Your task to perform on an android device: install app "Google Home" Image 0: 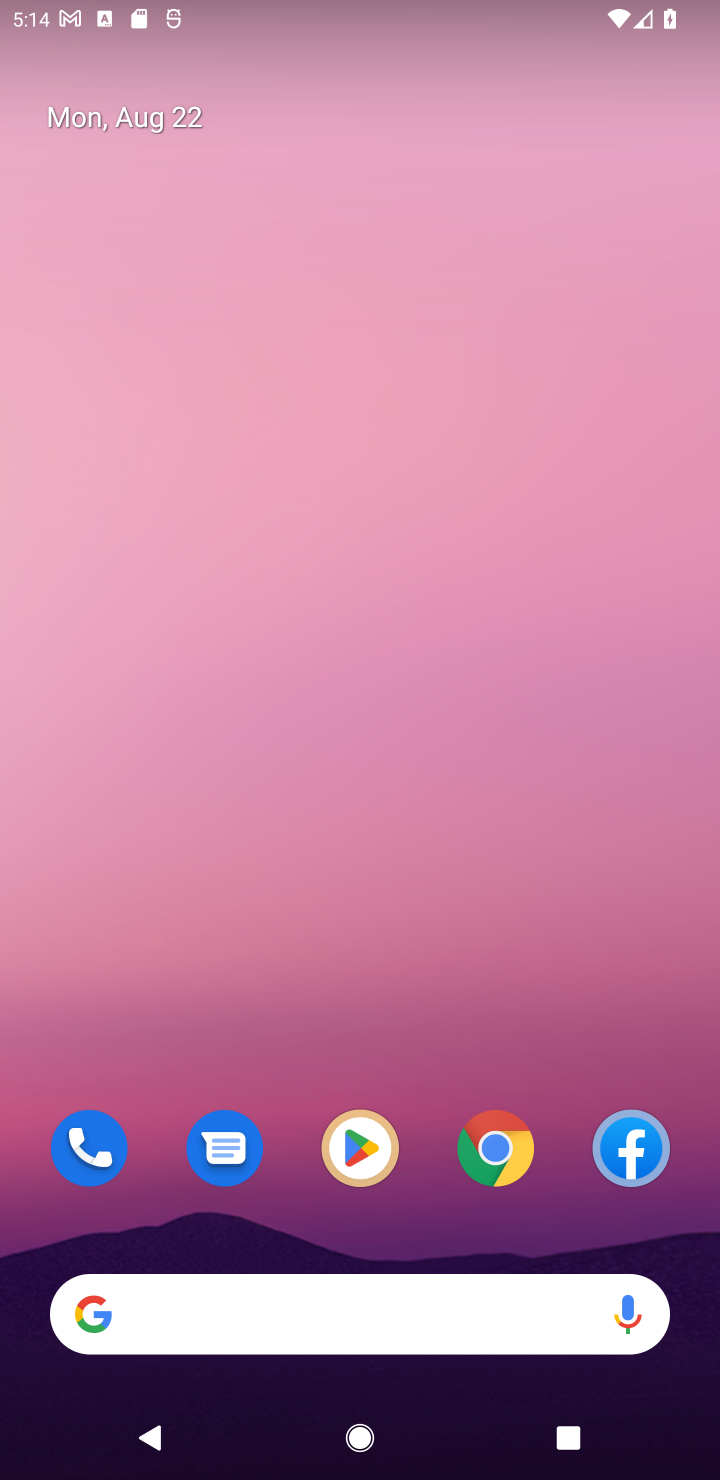
Step 0: click (359, 1149)
Your task to perform on an android device: install app "Google Home" Image 1: 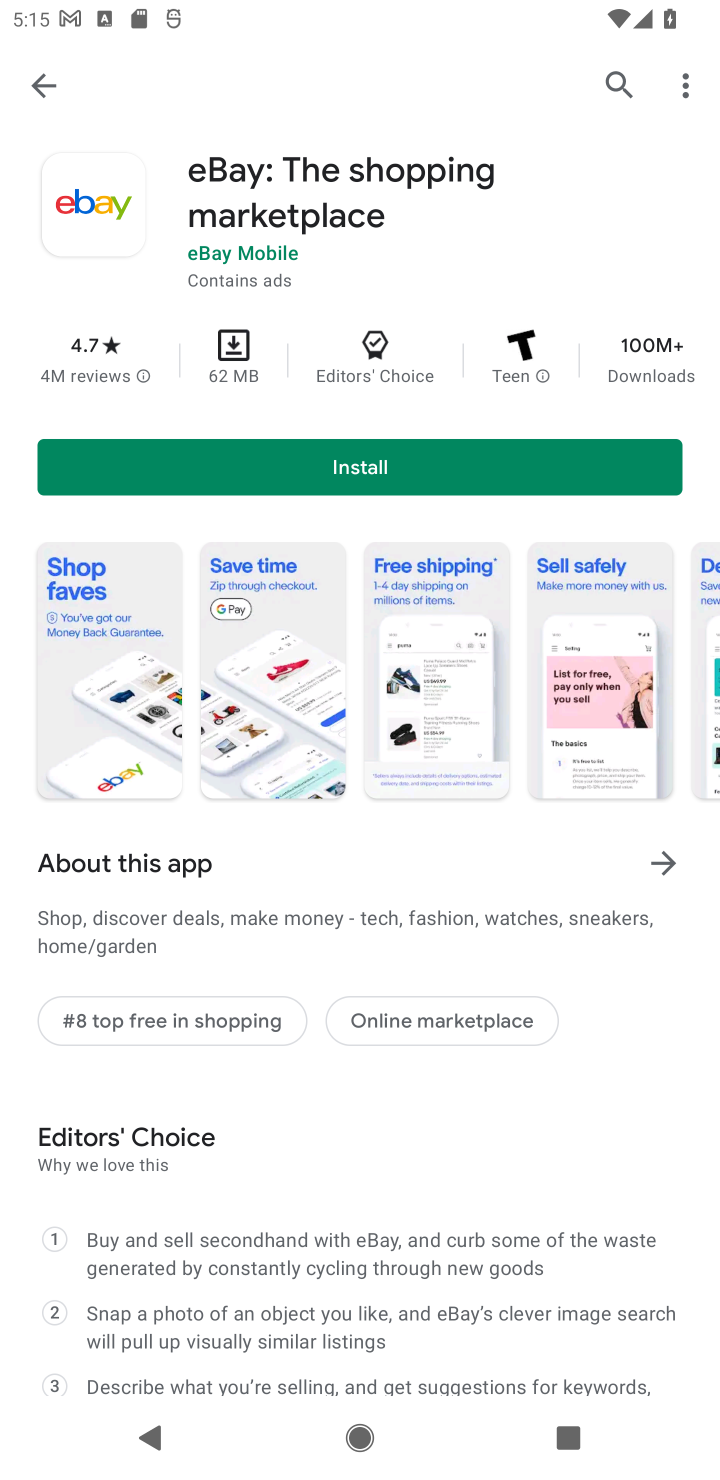
Step 1: click (609, 72)
Your task to perform on an android device: install app "Google Home" Image 2: 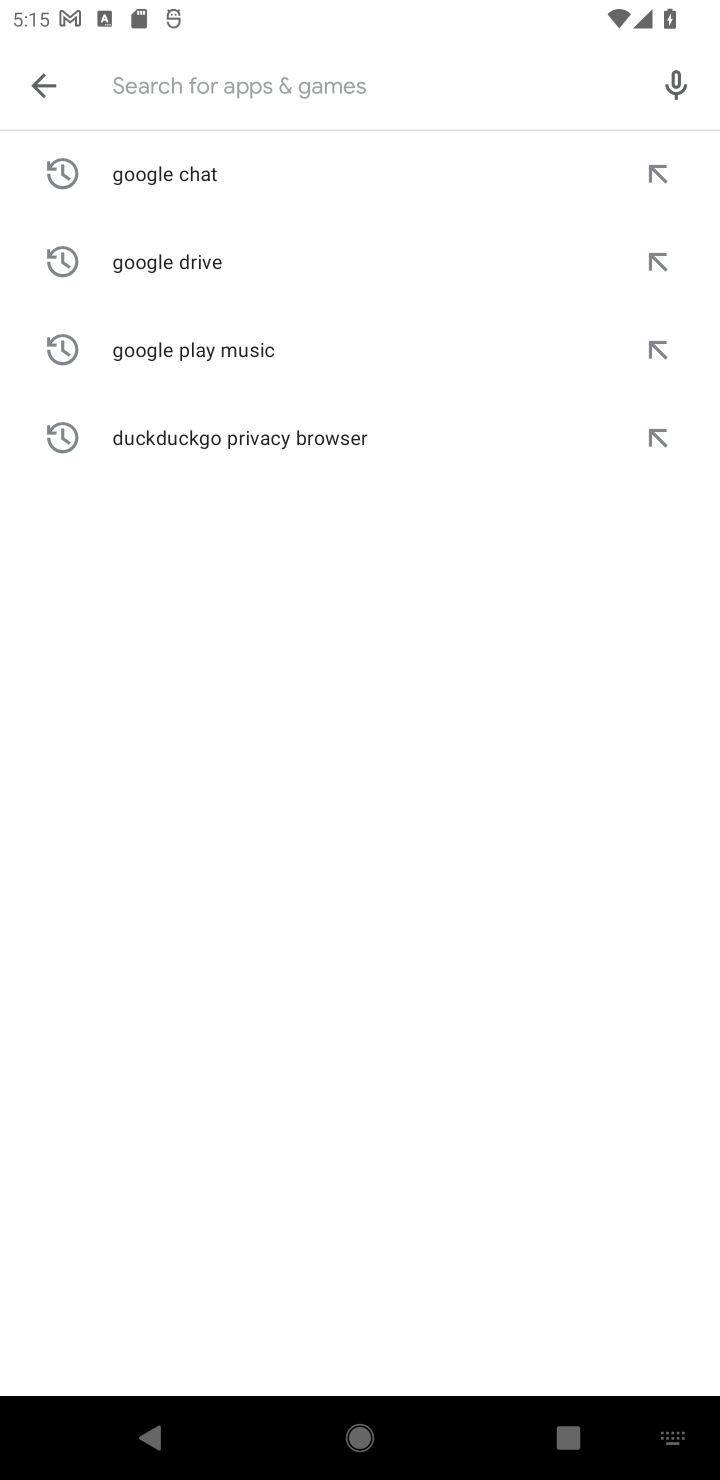
Step 2: type "Google Home"
Your task to perform on an android device: install app "Google Home" Image 3: 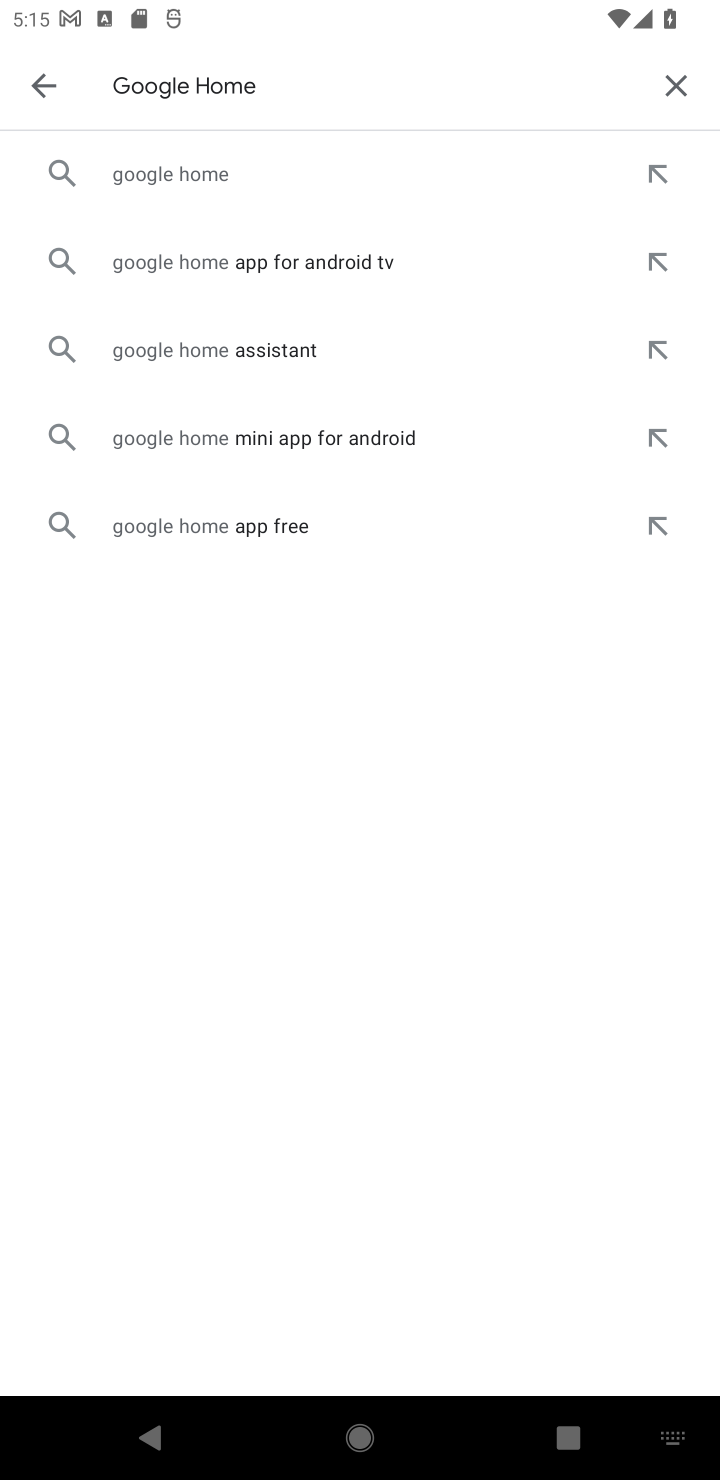
Step 3: click (186, 174)
Your task to perform on an android device: install app "Google Home" Image 4: 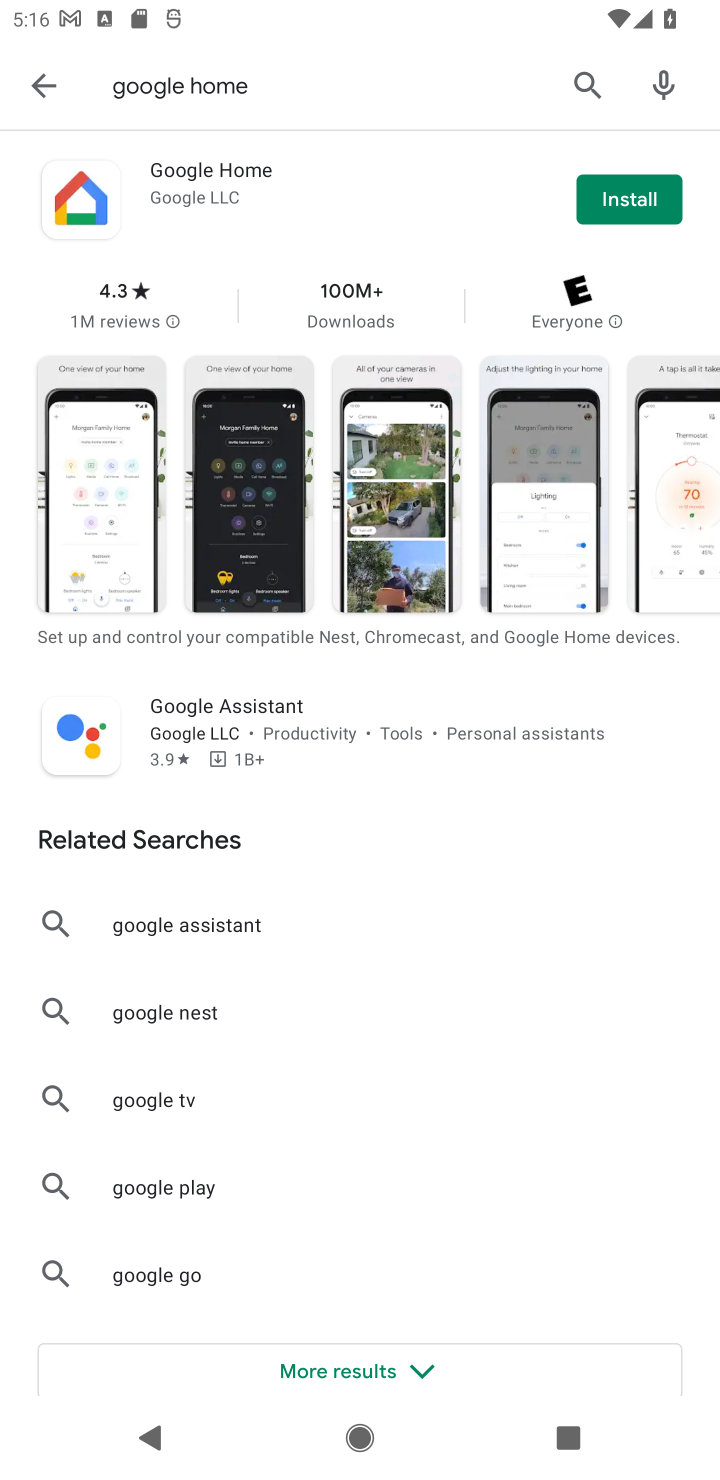
Step 4: click (621, 202)
Your task to perform on an android device: install app "Google Home" Image 5: 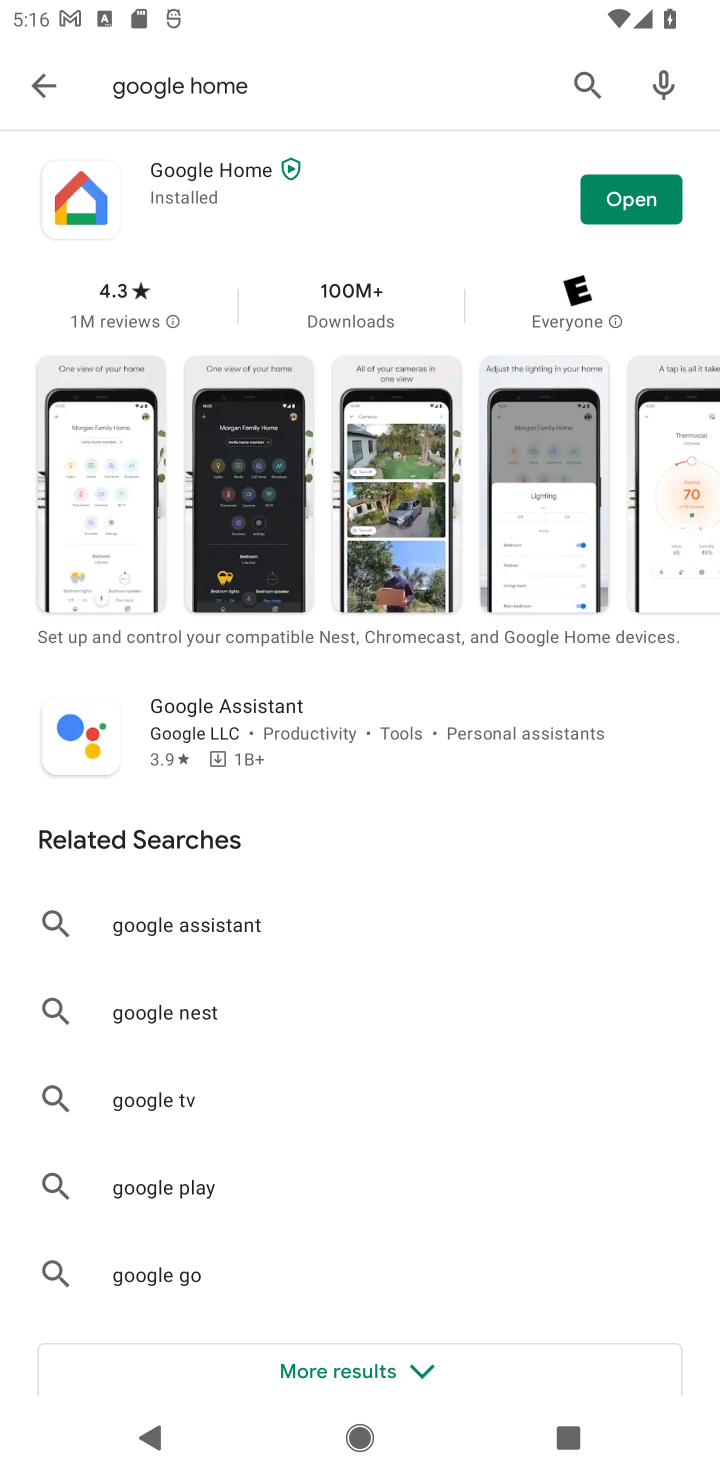
Step 5: task complete